Your task to perform on an android device: Open Chrome and go to the settings page Image 0: 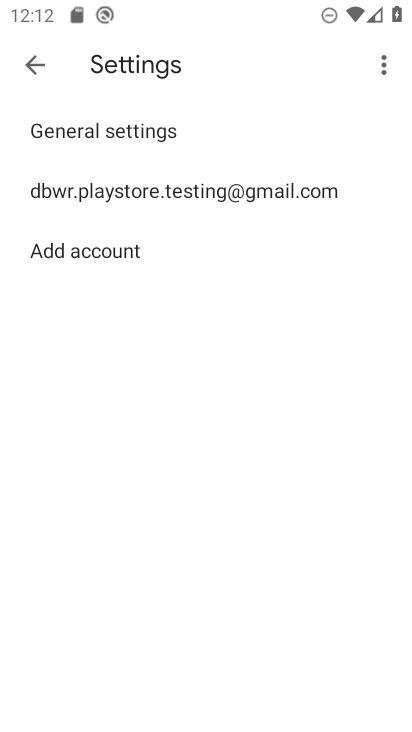
Step 0: press home button
Your task to perform on an android device: Open Chrome and go to the settings page Image 1: 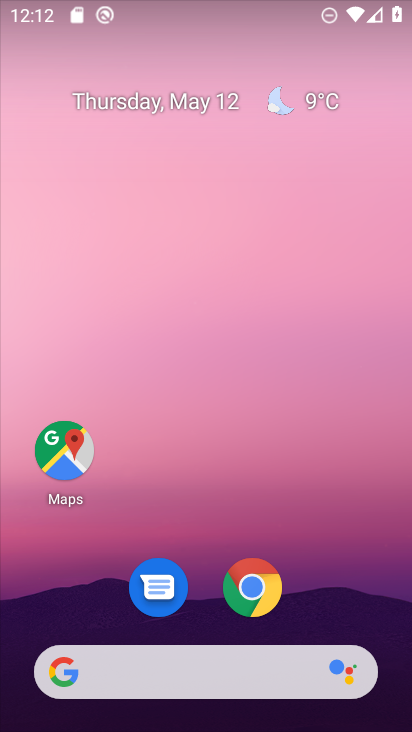
Step 1: drag from (342, 638) to (345, 200)
Your task to perform on an android device: Open Chrome and go to the settings page Image 2: 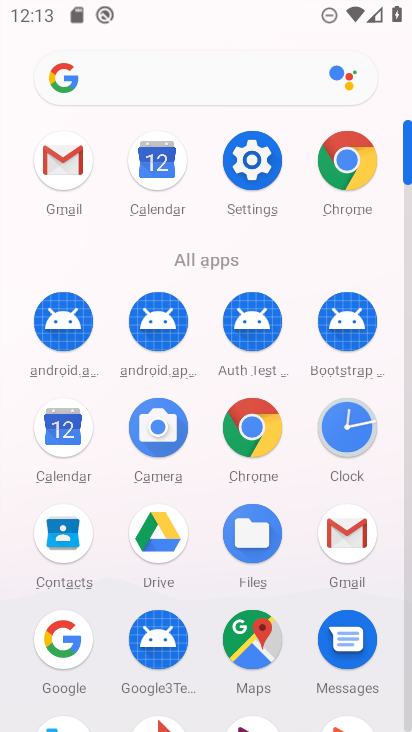
Step 2: click (341, 156)
Your task to perform on an android device: Open Chrome and go to the settings page Image 3: 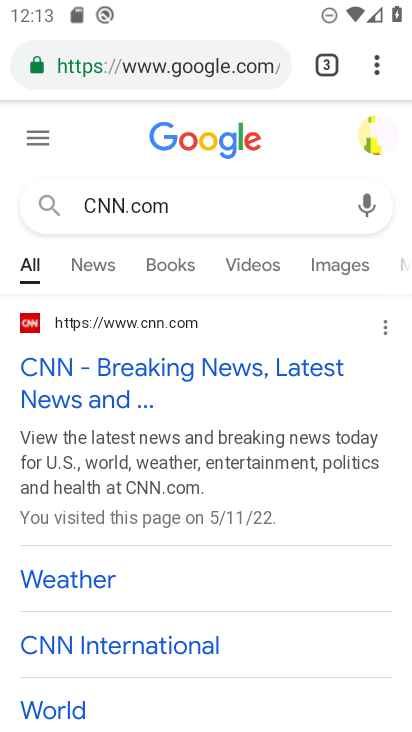
Step 3: click (361, 67)
Your task to perform on an android device: Open Chrome and go to the settings page Image 4: 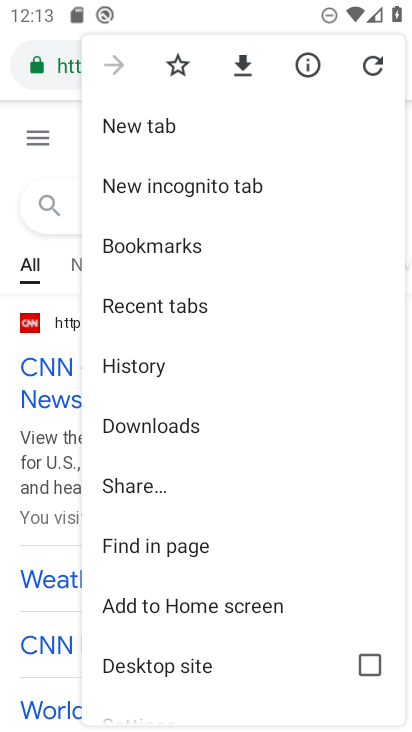
Step 4: drag from (173, 603) to (178, 250)
Your task to perform on an android device: Open Chrome and go to the settings page Image 5: 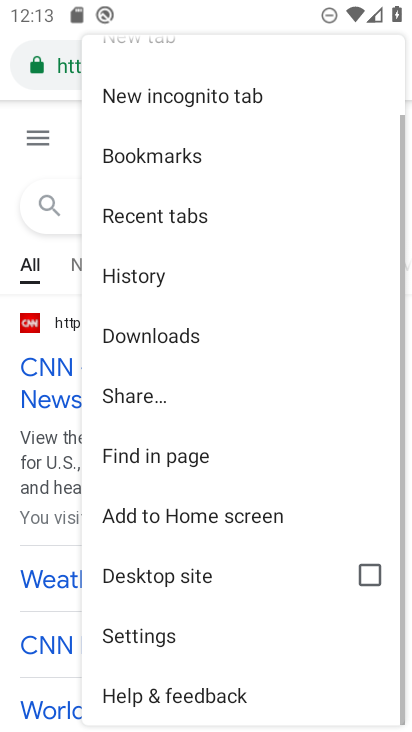
Step 5: drag from (181, 550) to (233, 182)
Your task to perform on an android device: Open Chrome and go to the settings page Image 6: 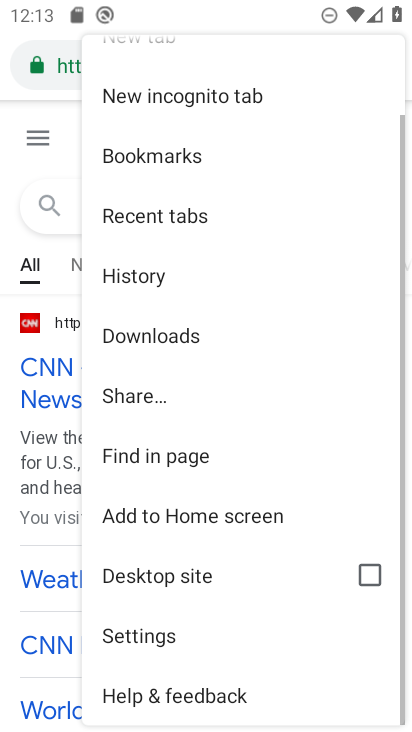
Step 6: click (154, 638)
Your task to perform on an android device: Open Chrome and go to the settings page Image 7: 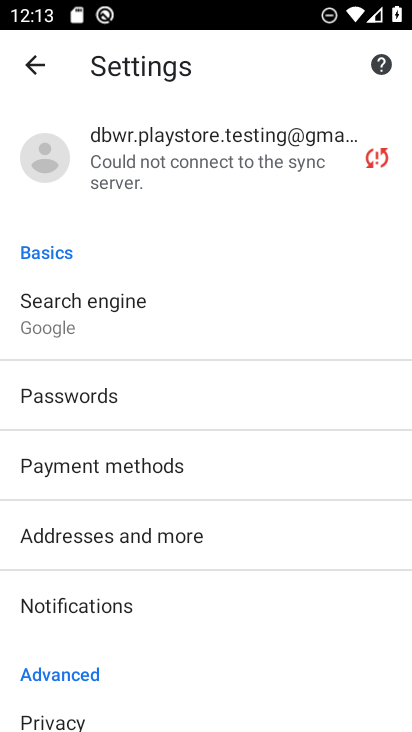
Step 7: task complete